Your task to perform on an android device: change text size in settings app Image 0: 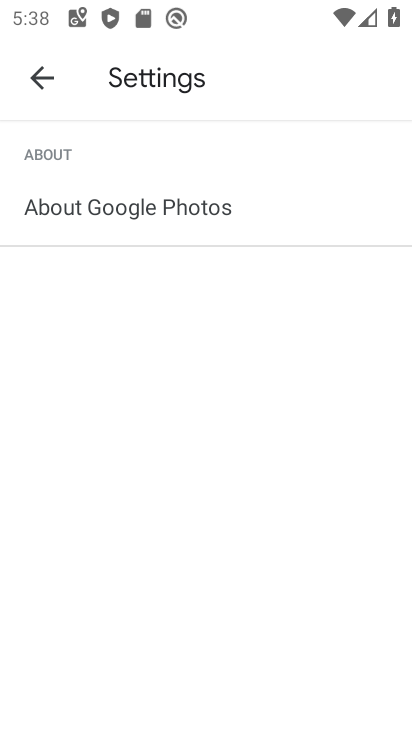
Step 0: press home button
Your task to perform on an android device: change text size in settings app Image 1: 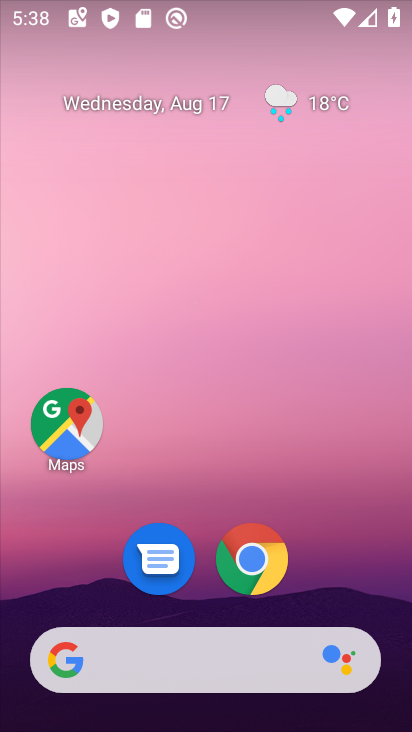
Step 1: drag from (185, 659) to (239, 13)
Your task to perform on an android device: change text size in settings app Image 2: 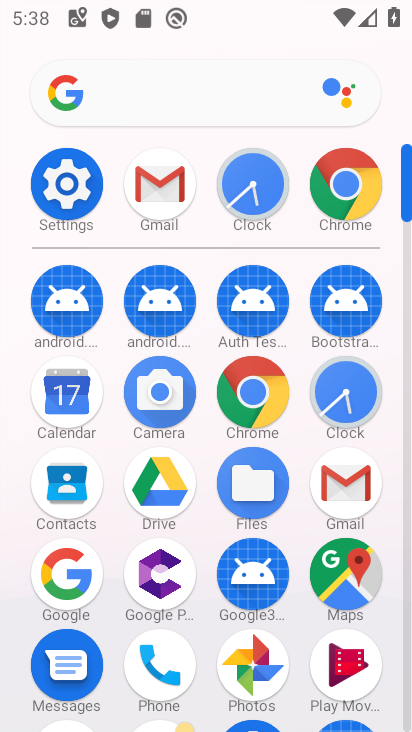
Step 2: click (70, 208)
Your task to perform on an android device: change text size in settings app Image 3: 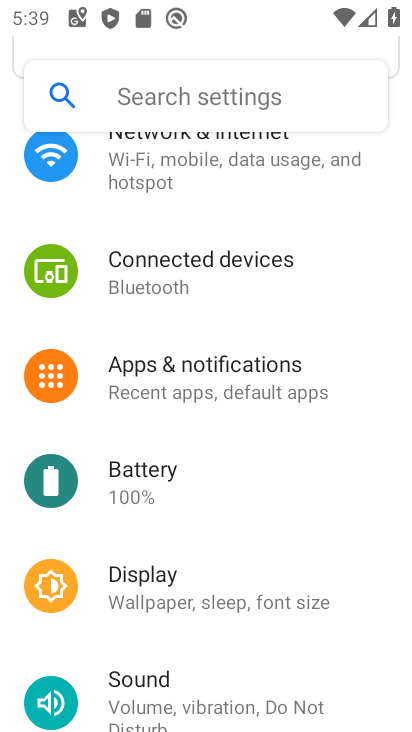
Step 3: click (172, 592)
Your task to perform on an android device: change text size in settings app Image 4: 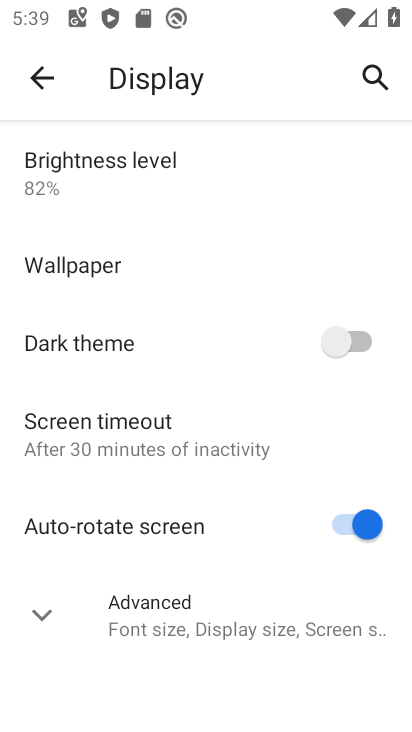
Step 4: click (138, 620)
Your task to perform on an android device: change text size in settings app Image 5: 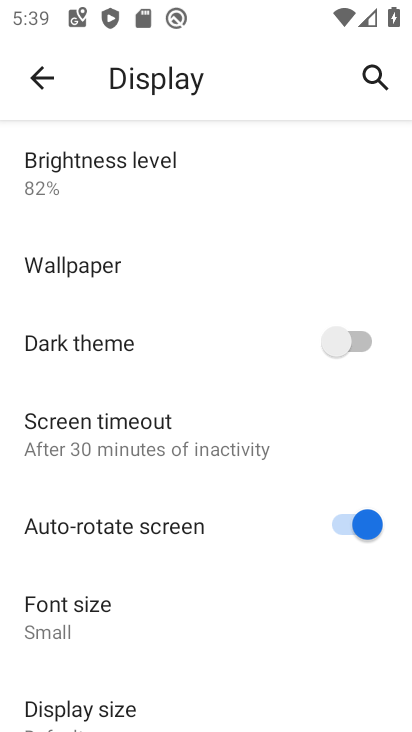
Step 5: click (114, 631)
Your task to perform on an android device: change text size in settings app Image 6: 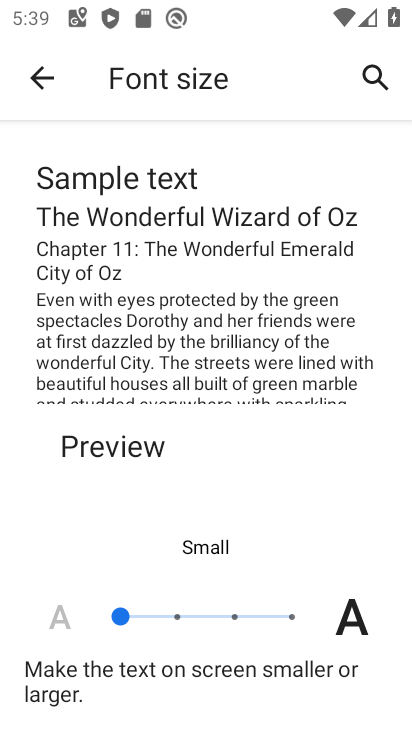
Step 6: click (178, 613)
Your task to perform on an android device: change text size in settings app Image 7: 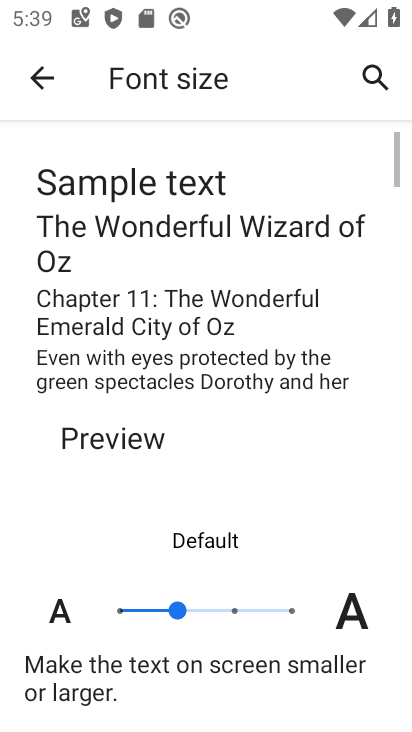
Step 7: task complete